Your task to perform on an android device: set the stopwatch Image 0: 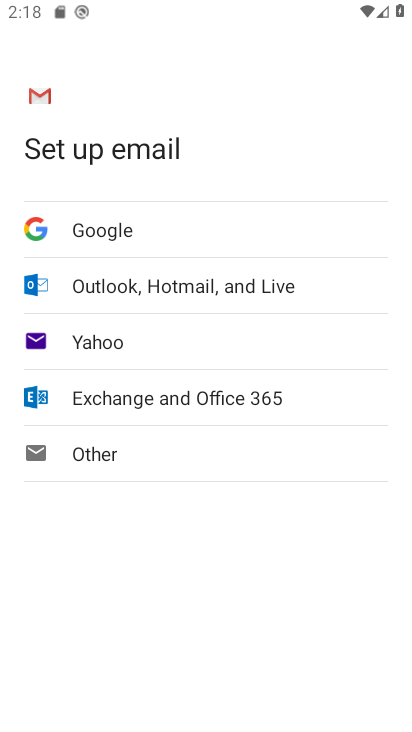
Step 0: press home button
Your task to perform on an android device: set the stopwatch Image 1: 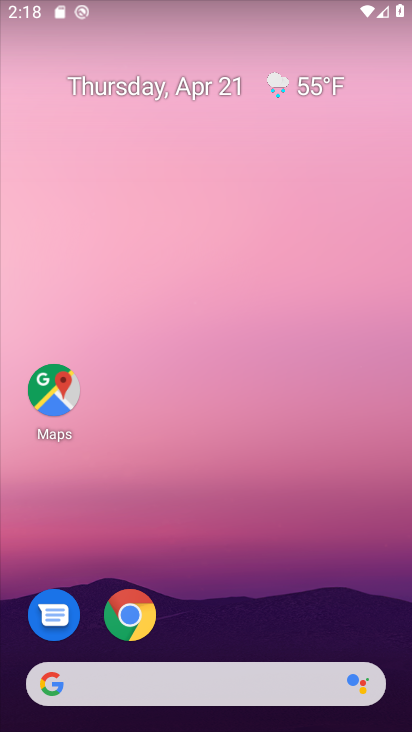
Step 1: drag from (211, 620) to (303, 240)
Your task to perform on an android device: set the stopwatch Image 2: 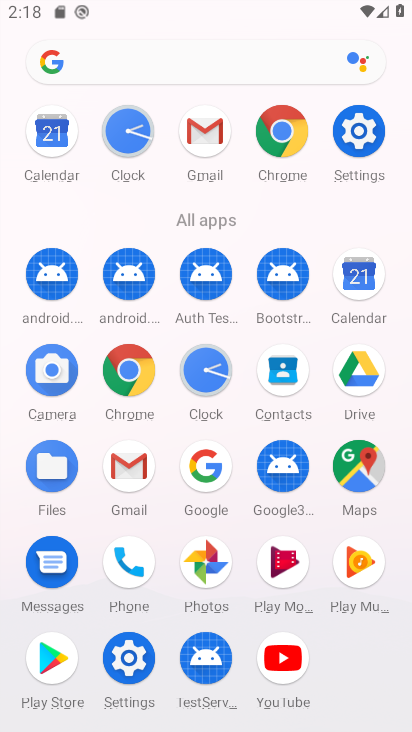
Step 2: click (199, 380)
Your task to perform on an android device: set the stopwatch Image 3: 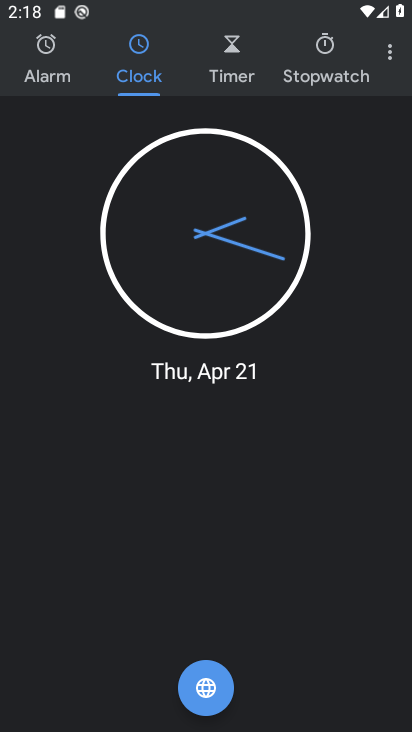
Step 3: click (334, 70)
Your task to perform on an android device: set the stopwatch Image 4: 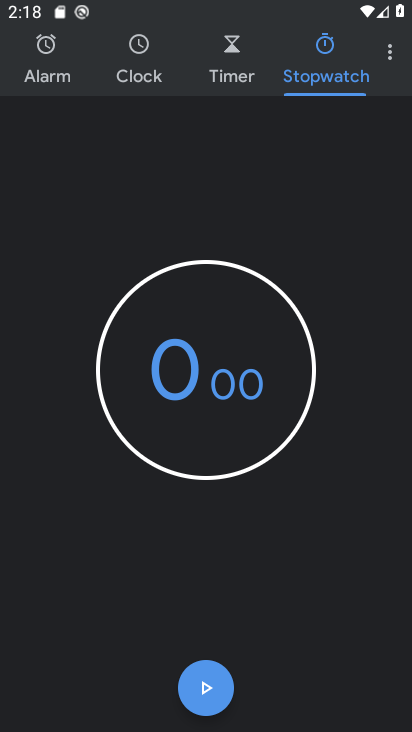
Step 4: task complete